Your task to perform on an android device: Open calendar and show me the first week of next month Image 0: 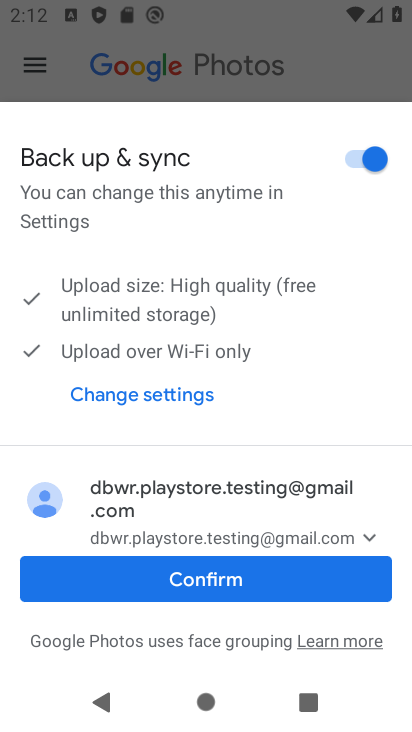
Step 0: press home button
Your task to perform on an android device: Open calendar and show me the first week of next month Image 1: 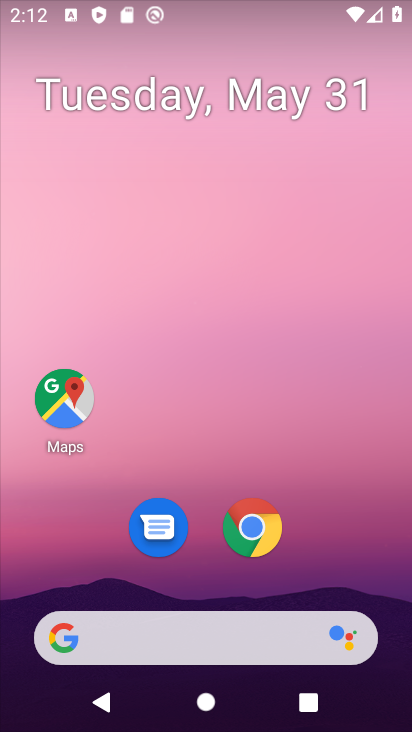
Step 1: drag from (401, 639) to (300, 177)
Your task to perform on an android device: Open calendar and show me the first week of next month Image 2: 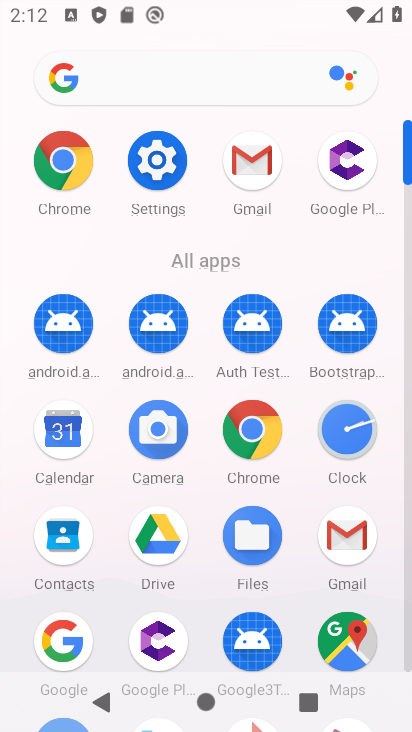
Step 2: click (406, 643)
Your task to perform on an android device: Open calendar and show me the first week of next month Image 3: 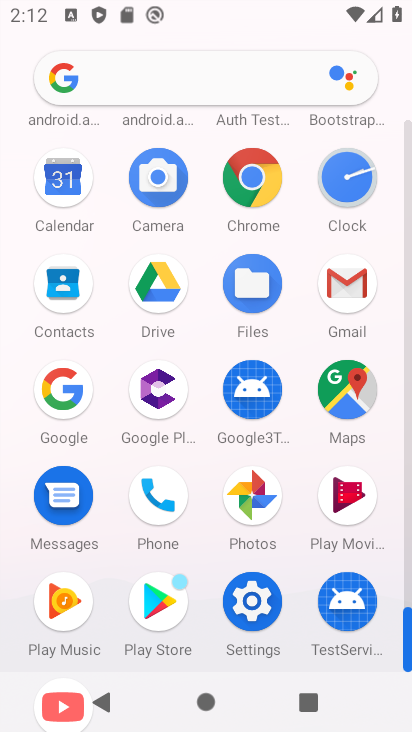
Step 3: click (61, 177)
Your task to perform on an android device: Open calendar and show me the first week of next month Image 4: 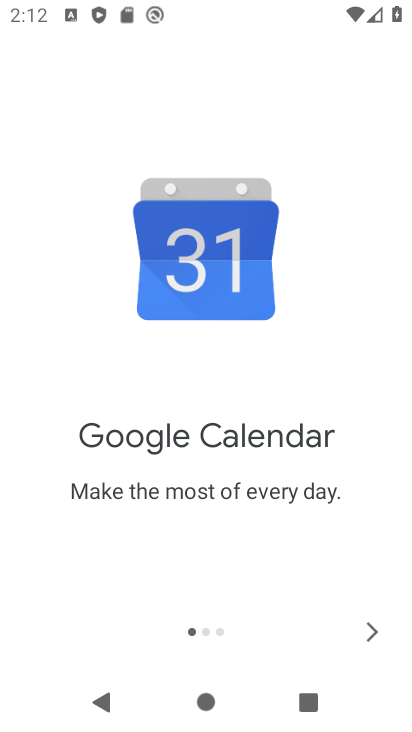
Step 4: click (376, 630)
Your task to perform on an android device: Open calendar and show me the first week of next month Image 5: 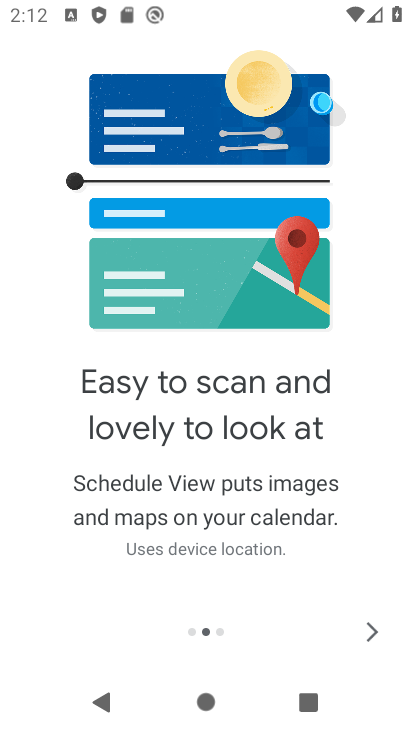
Step 5: click (376, 630)
Your task to perform on an android device: Open calendar and show me the first week of next month Image 6: 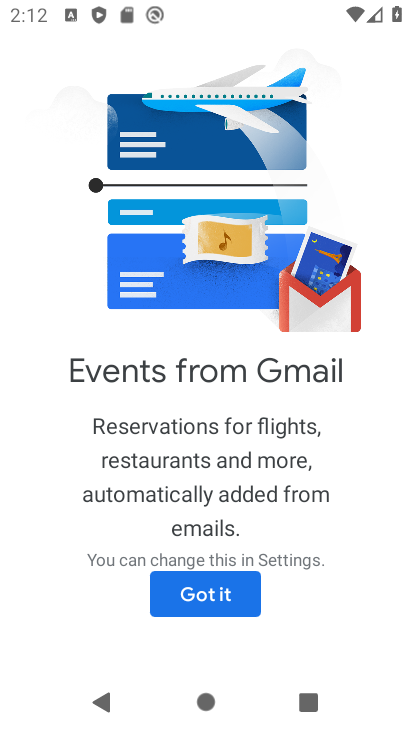
Step 6: click (205, 593)
Your task to perform on an android device: Open calendar and show me the first week of next month Image 7: 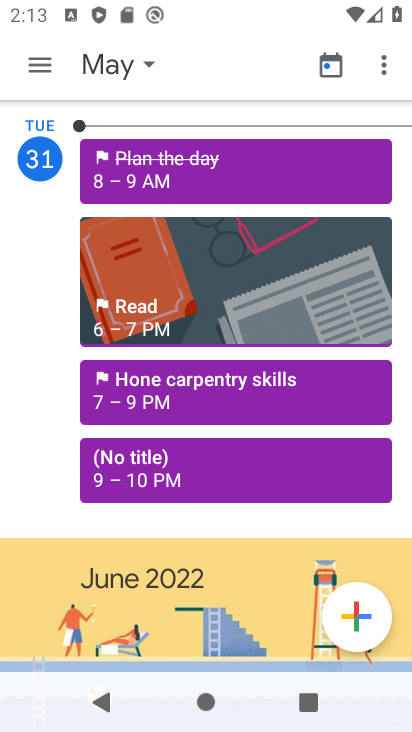
Step 7: click (46, 58)
Your task to perform on an android device: Open calendar and show me the first week of next month Image 8: 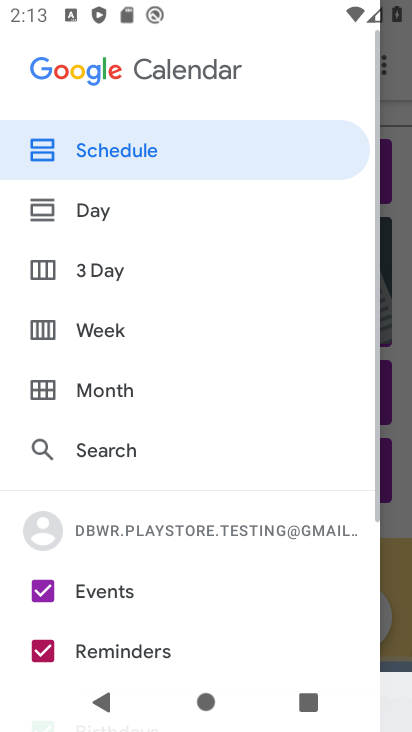
Step 8: click (115, 337)
Your task to perform on an android device: Open calendar and show me the first week of next month Image 9: 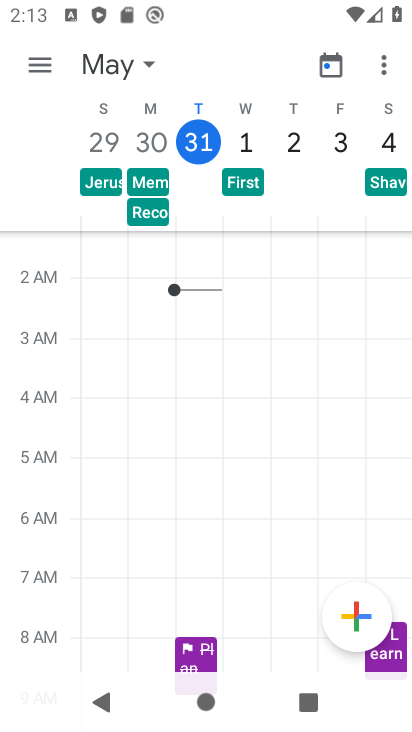
Step 9: click (146, 66)
Your task to perform on an android device: Open calendar and show me the first week of next month Image 10: 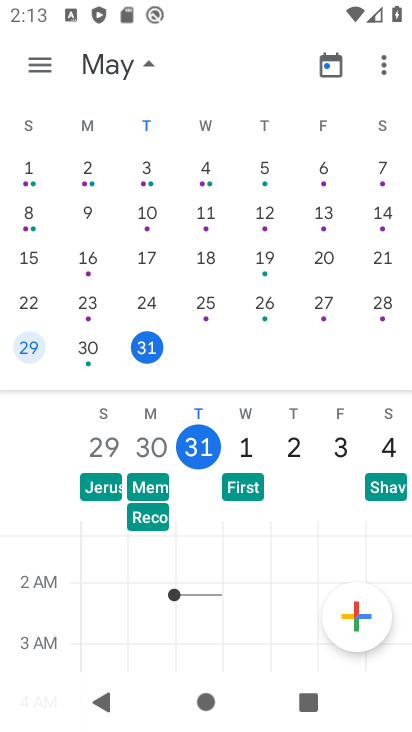
Step 10: drag from (364, 283) to (47, 234)
Your task to perform on an android device: Open calendar and show me the first week of next month Image 11: 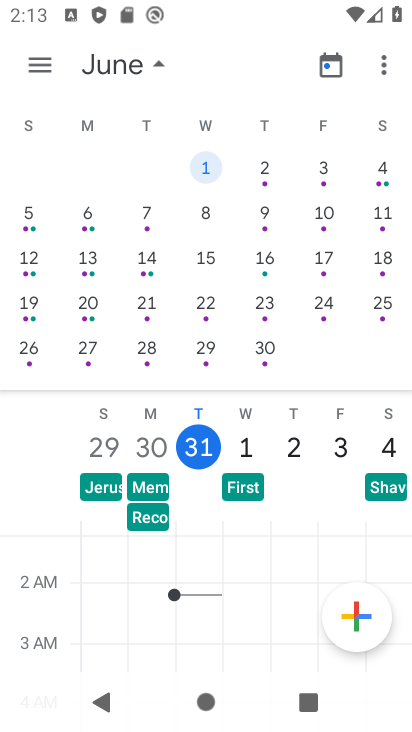
Step 11: click (25, 220)
Your task to perform on an android device: Open calendar and show me the first week of next month Image 12: 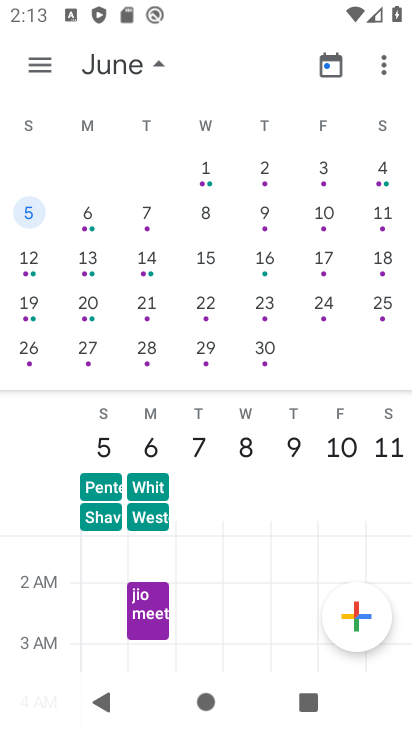
Step 12: task complete